Your task to perform on an android device: turn notification dots off Image 0: 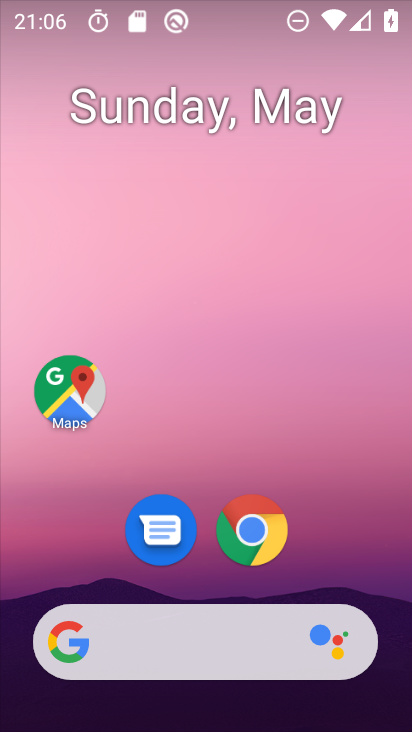
Step 0: drag from (185, 660) to (359, 68)
Your task to perform on an android device: turn notification dots off Image 1: 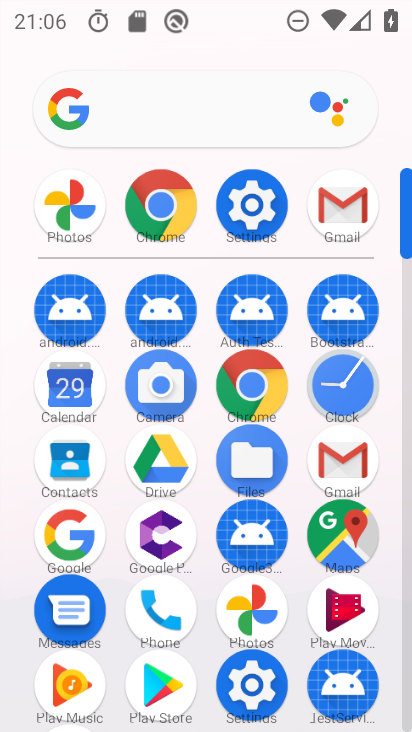
Step 1: click (274, 200)
Your task to perform on an android device: turn notification dots off Image 2: 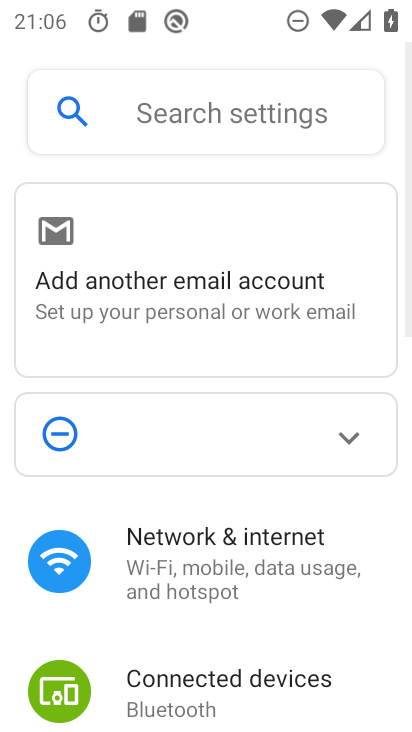
Step 2: click (216, 120)
Your task to perform on an android device: turn notification dots off Image 3: 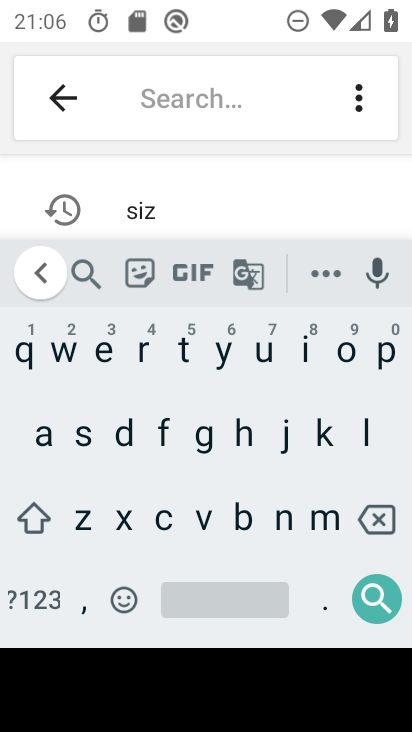
Step 3: click (118, 425)
Your task to perform on an android device: turn notification dots off Image 4: 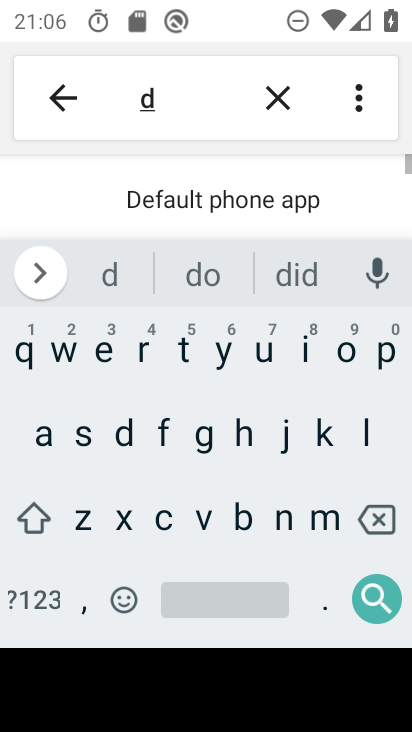
Step 4: click (347, 341)
Your task to perform on an android device: turn notification dots off Image 5: 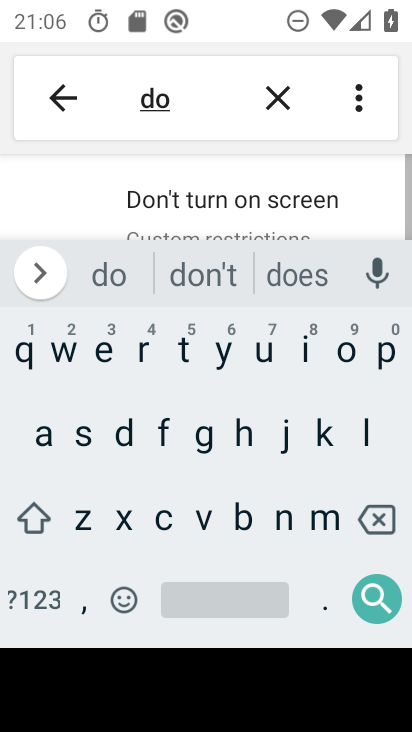
Step 5: click (183, 365)
Your task to perform on an android device: turn notification dots off Image 6: 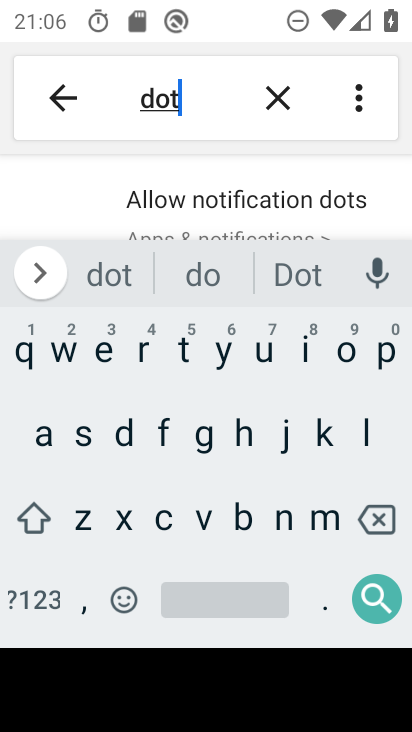
Step 6: click (250, 194)
Your task to perform on an android device: turn notification dots off Image 7: 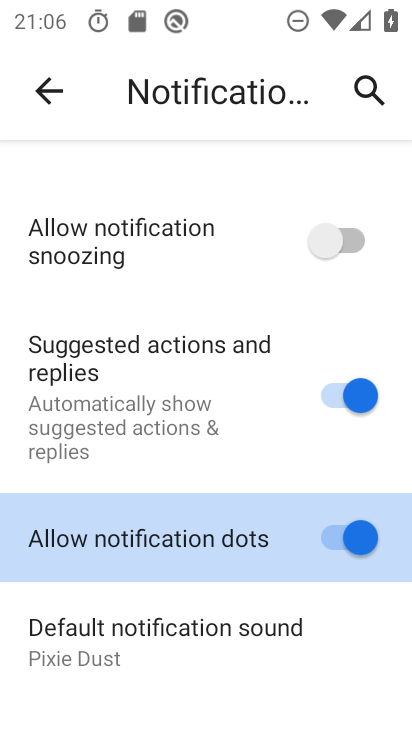
Step 7: click (324, 534)
Your task to perform on an android device: turn notification dots off Image 8: 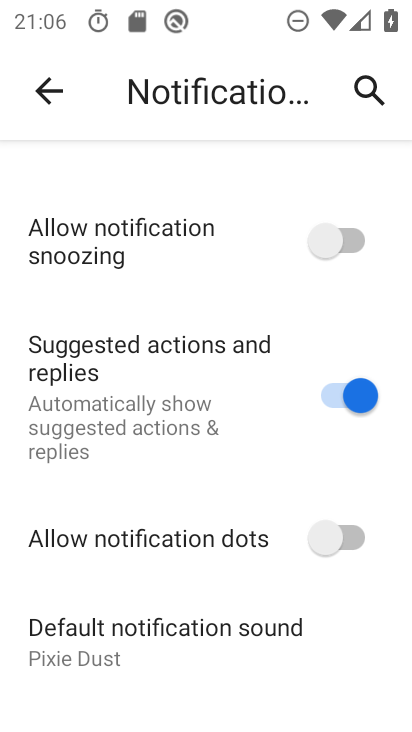
Step 8: task complete